Your task to perform on an android device: Search for a dining table on crateandbarrel.com Image 0: 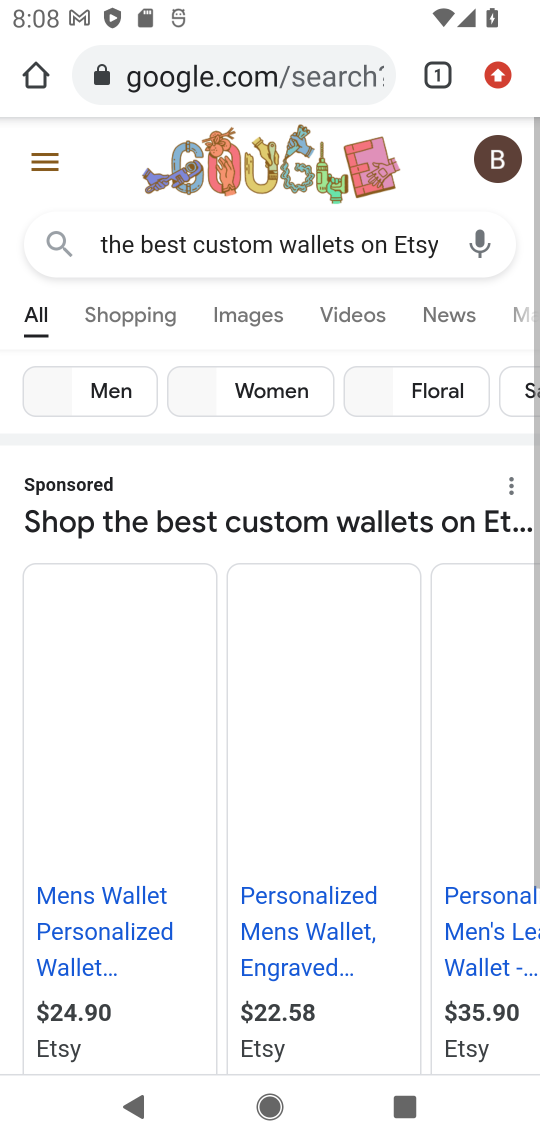
Step 0: press home button
Your task to perform on an android device: Search for a dining table on crateandbarrel.com Image 1: 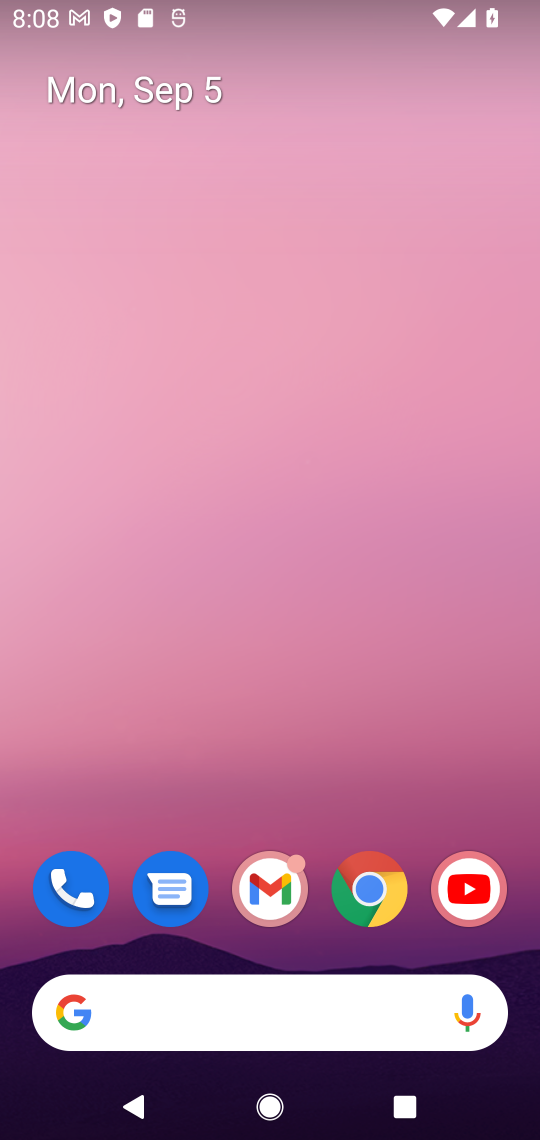
Step 1: drag from (247, 942) to (224, 49)
Your task to perform on an android device: Search for a dining table on crateandbarrel.com Image 2: 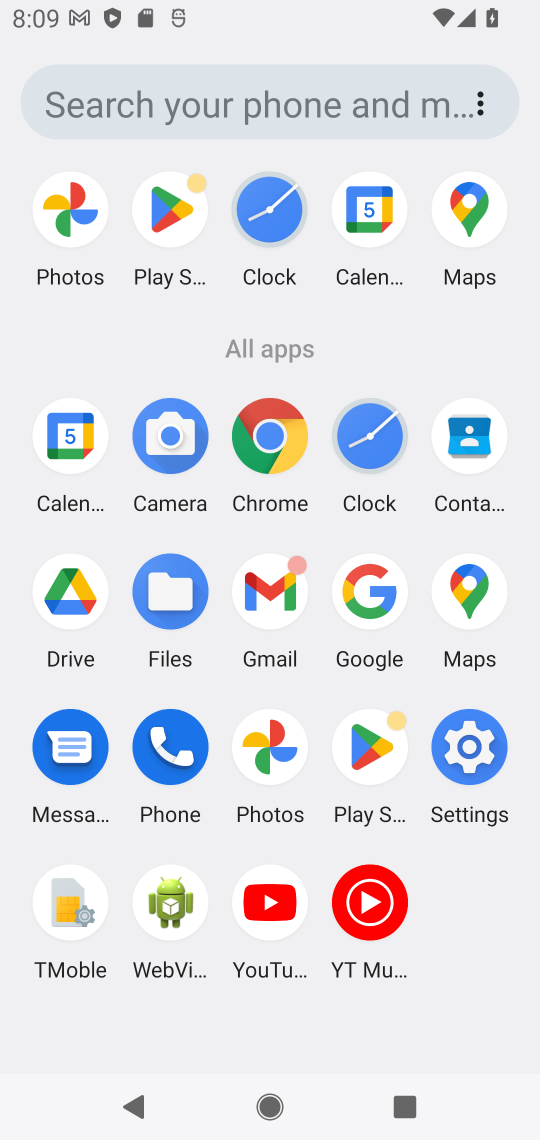
Step 2: click (373, 596)
Your task to perform on an android device: Search for a dining table on crateandbarrel.com Image 3: 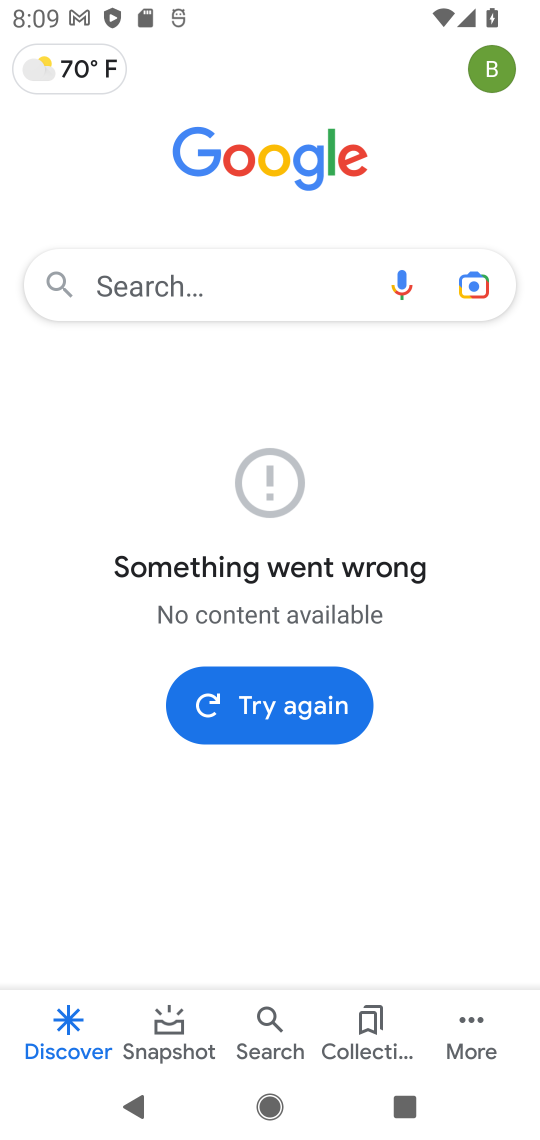
Step 3: click (373, 596)
Your task to perform on an android device: Search for a dining table on crateandbarrel.com Image 4: 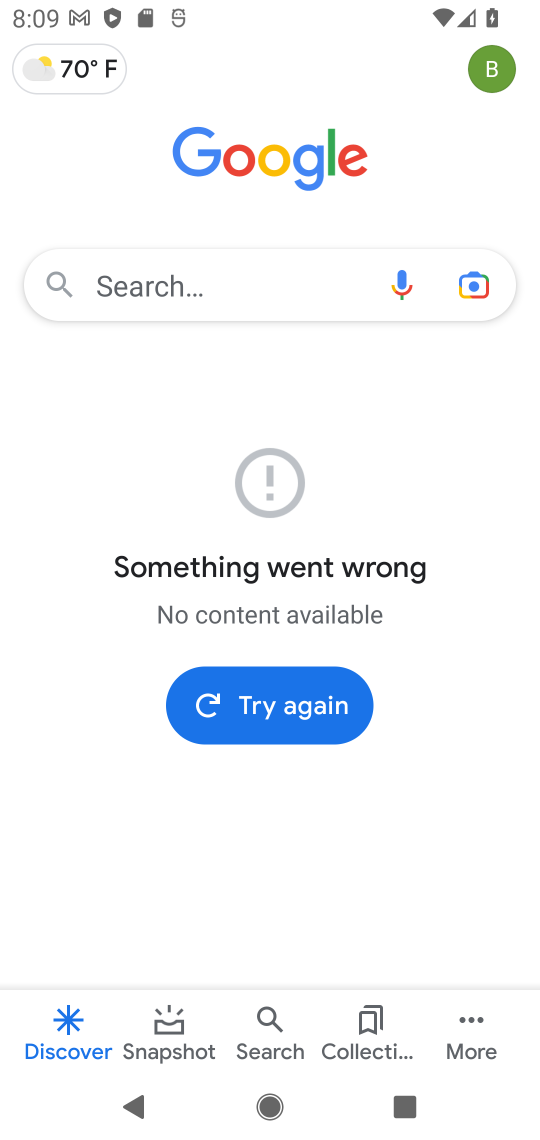
Step 4: click (222, 284)
Your task to perform on an android device: Search for a dining table on crateandbarrel.com Image 5: 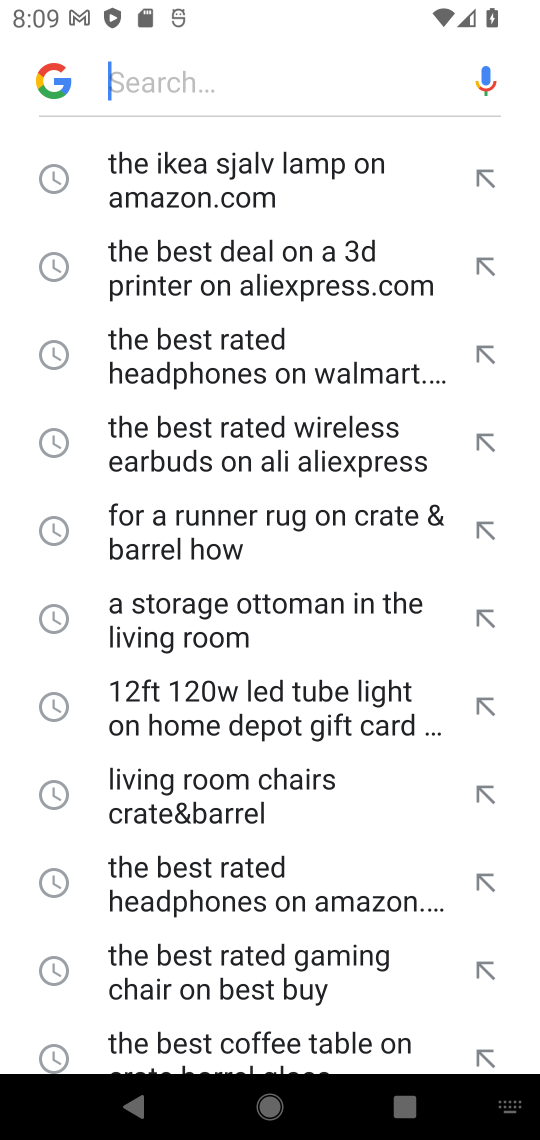
Step 5: click (222, 284)
Your task to perform on an android device: Search for a dining table on crateandbarrel.com Image 6: 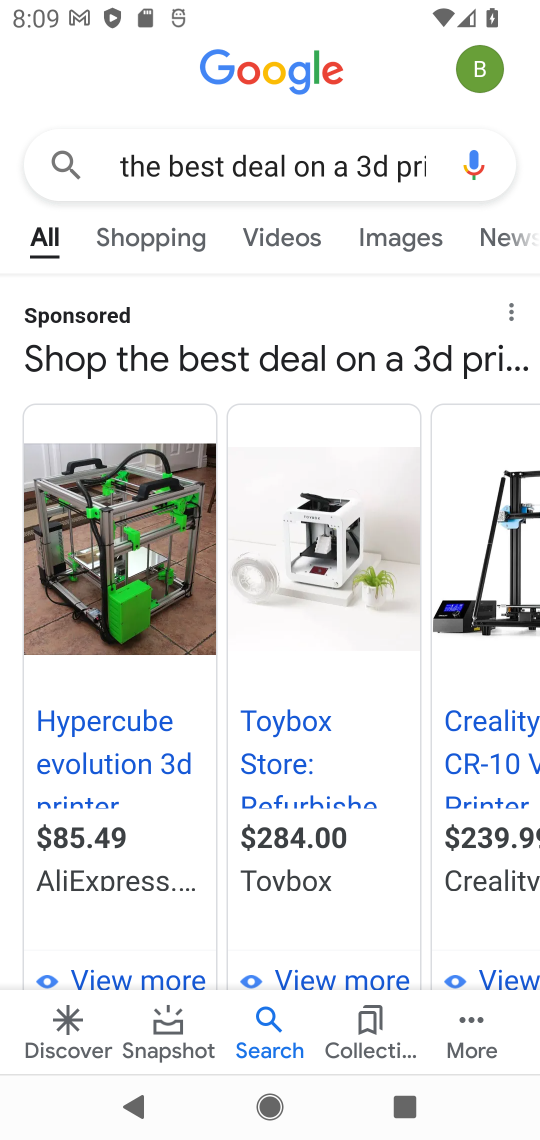
Step 6: click (411, 171)
Your task to perform on an android device: Search for a dining table on crateandbarrel.com Image 7: 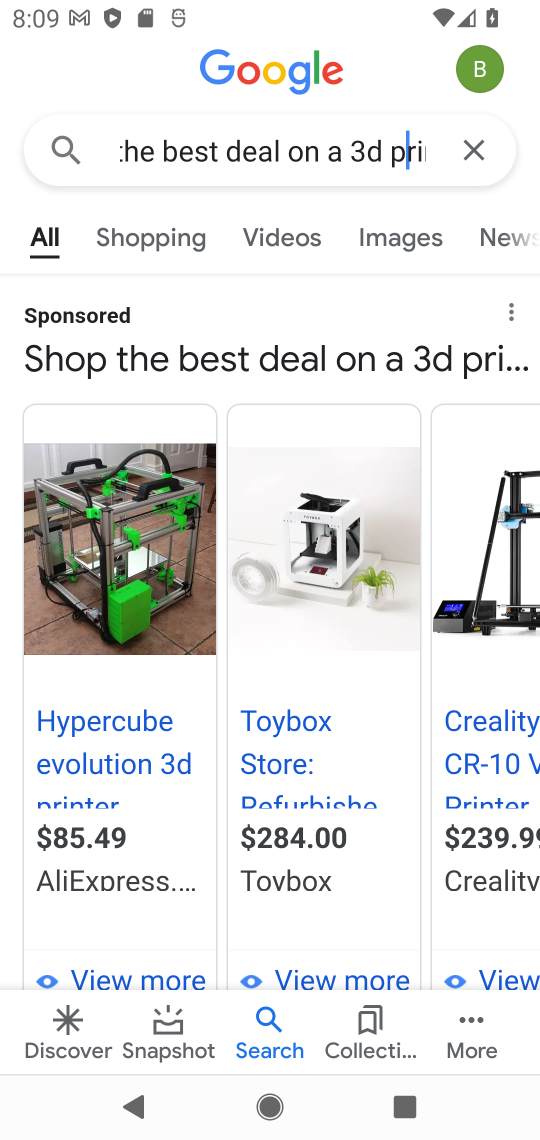
Step 7: click (411, 171)
Your task to perform on an android device: Search for a dining table on crateandbarrel.com Image 8: 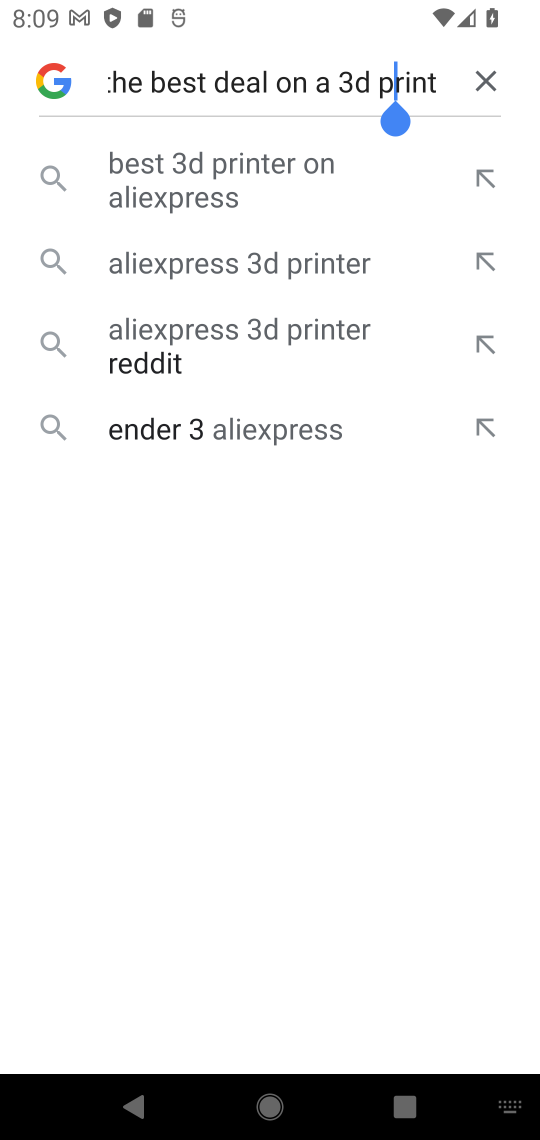
Step 8: click (473, 77)
Your task to perform on an android device: Search for a dining table on crateandbarrel.com Image 9: 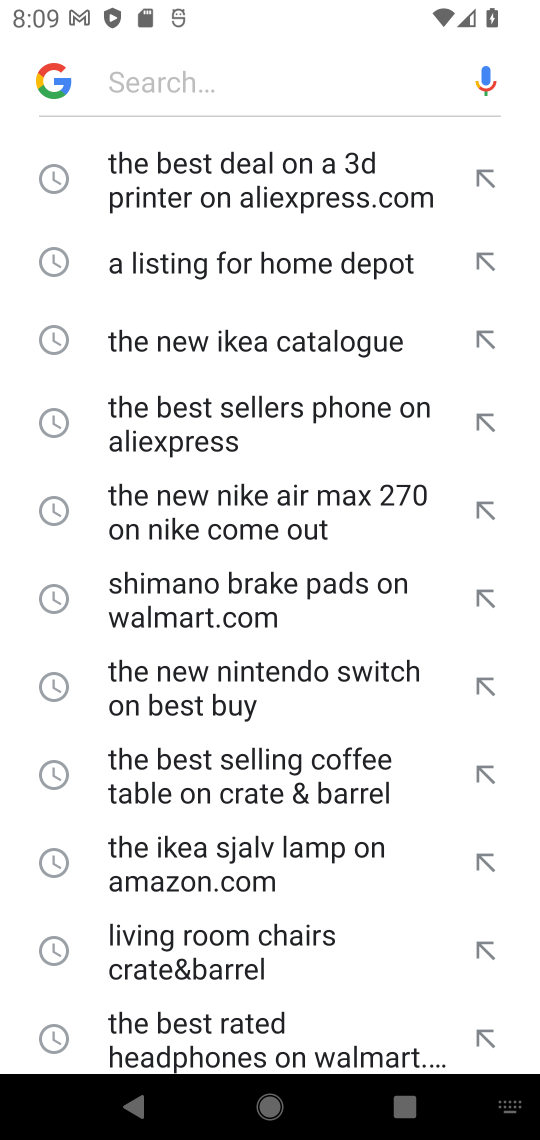
Step 9: type " a dining table on crateandbarrel.com"
Your task to perform on an android device: Search for a dining table on crateandbarrel.com Image 10: 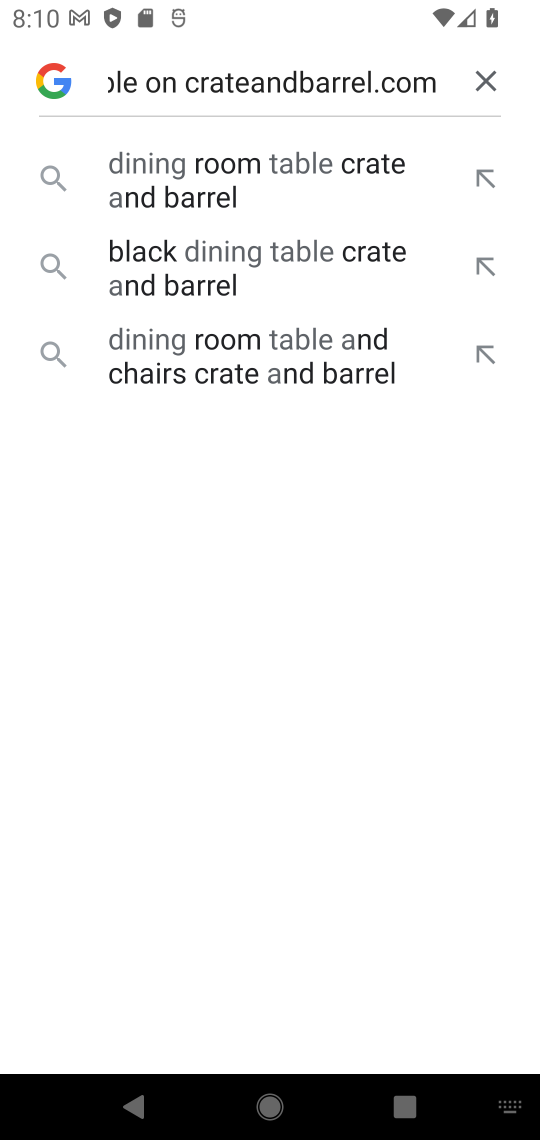
Step 10: click (224, 178)
Your task to perform on an android device: Search for a dining table on crateandbarrel.com Image 11: 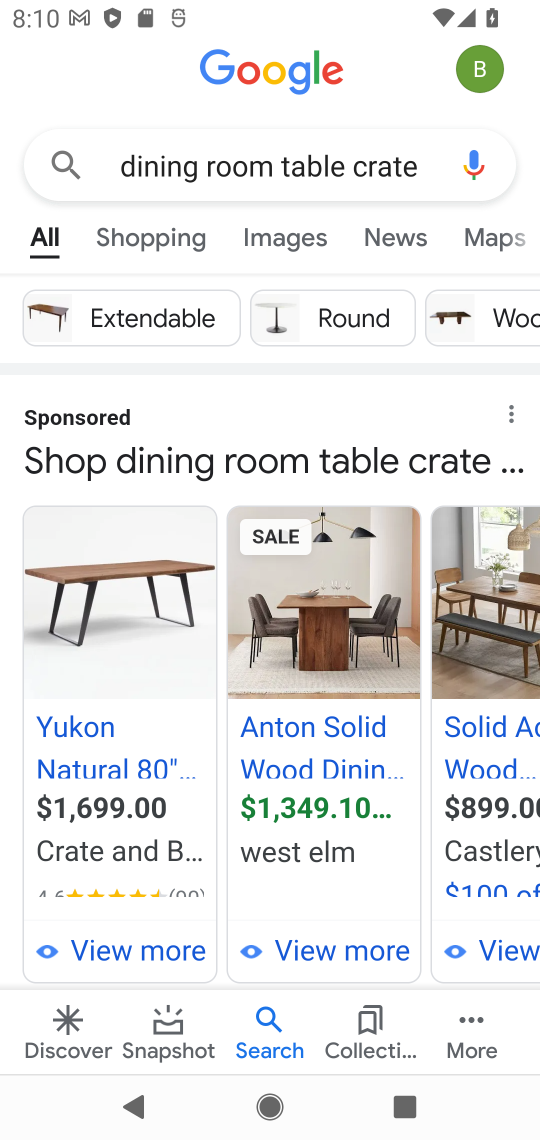
Step 11: task complete